Your task to perform on an android device: turn off translation in the chrome app Image 0: 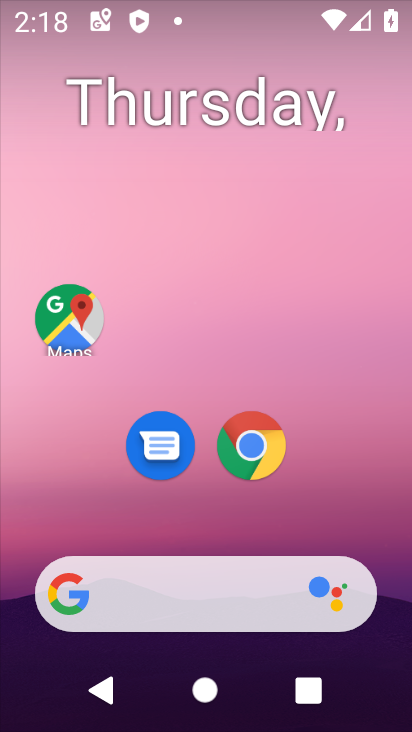
Step 0: press home button
Your task to perform on an android device: turn off translation in the chrome app Image 1: 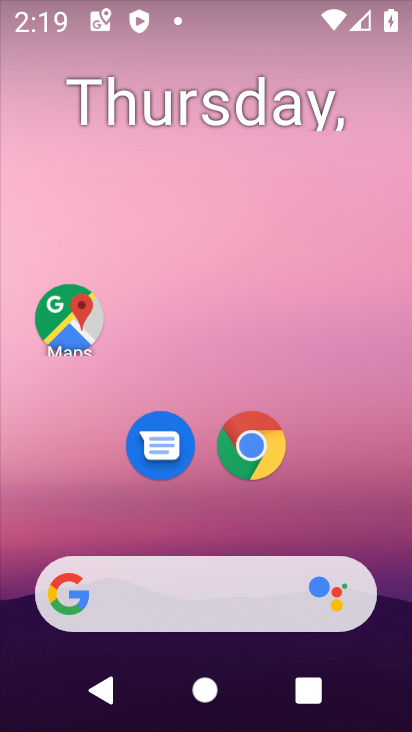
Step 1: click (242, 460)
Your task to perform on an android device: turn off translation in the chrome app Image 2: 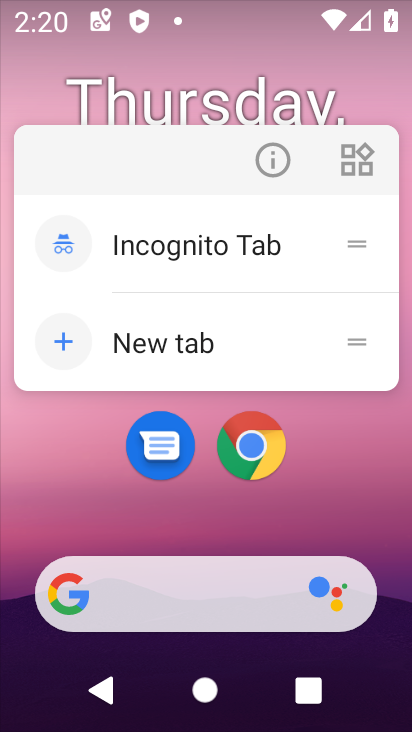
Step 2: click (253, 448)
Your task to perform on an android device: turn off translation in the chrome app Image 3: 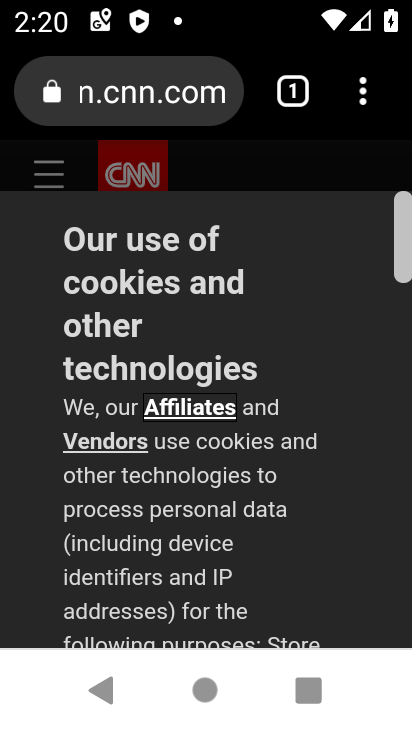
Step 3: click (363, 93)
Your task to perform on an android device: turn off translation in the chrome app Image 4: 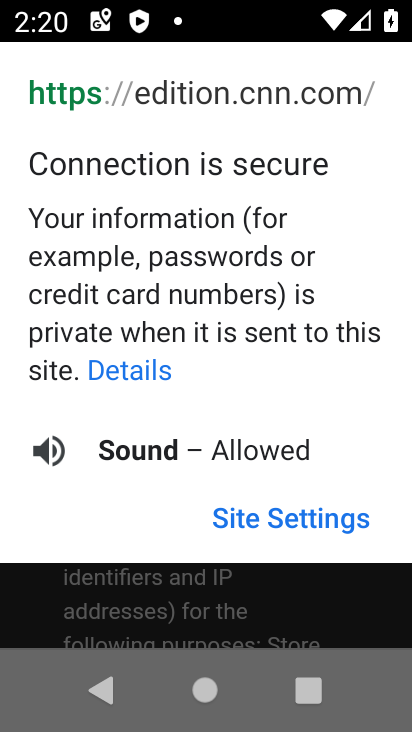
Step 4: press back button
Your task to perform on an android device: turn off translation in the chrome app Image 5: 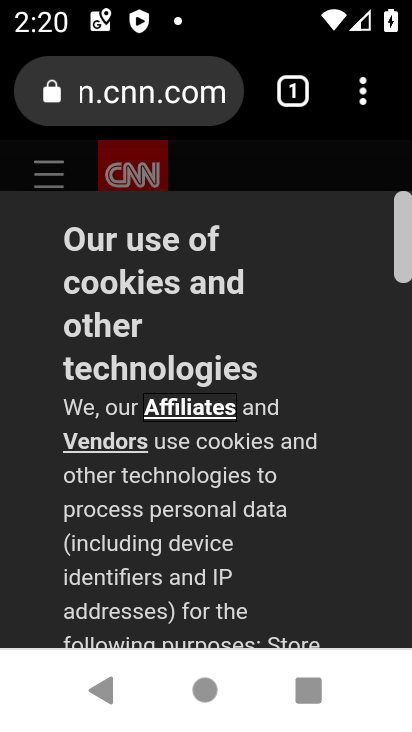
Step 5: click (360, 89)
Your task to perform on an android device: turn off translation in the chrome app Image 6: 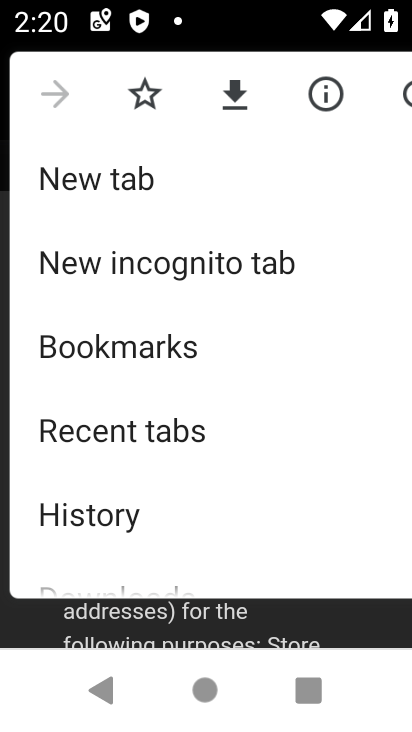
Step 6: drag from (37, 557) to (274, 70)
Your task to perform on an android device: turn off translation in the chrome app Image 7: 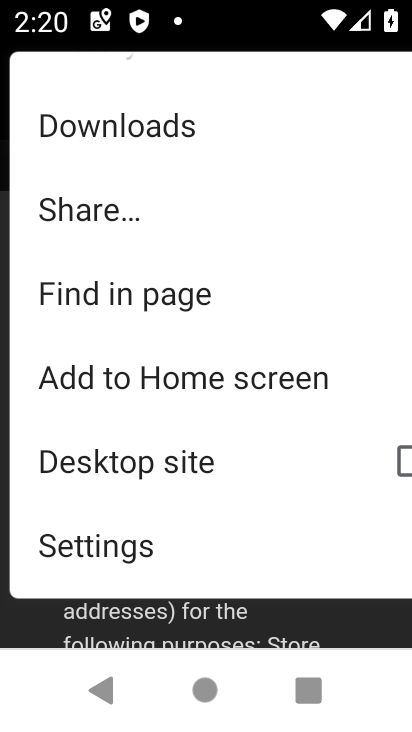
Step 7: drag from (71, 543) to (220, 184)
Your task to perform on an android device: turn off translation in the chrome app Image 8: 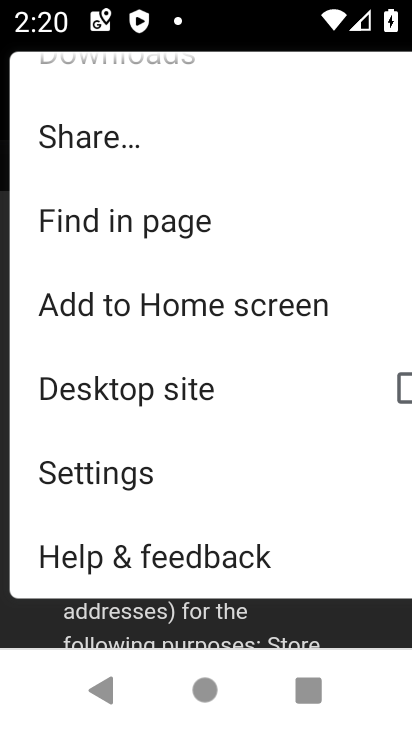
Step 8: click (96, 471)
Your task to perform on an android device: turn off translation in the chrome app Image 9: 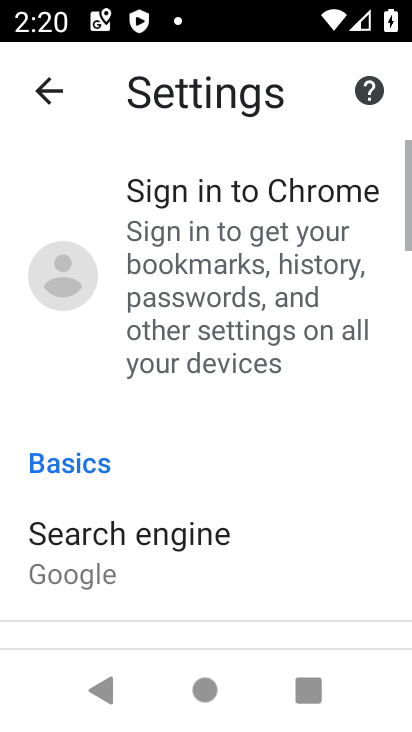
Step 9: drag from (61, 520) to (199, 223)
Your task to perform on an android device: turn off translation in the chrome app Image 10: 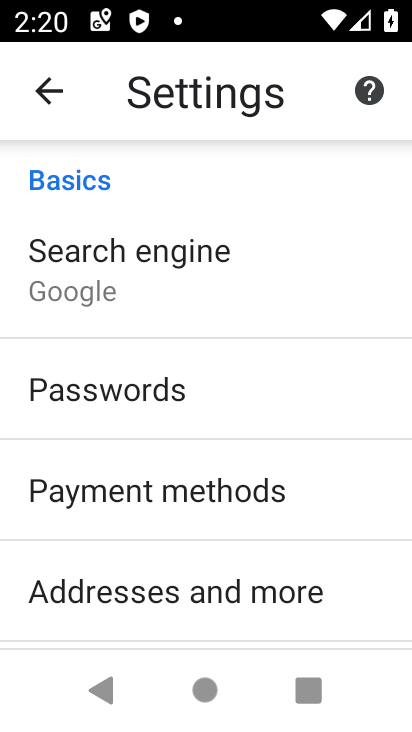
Step 10: drag from (10, 578) to (184, 233)
Your task to perform on an android device: turn off translation in the chrome app Image 11: 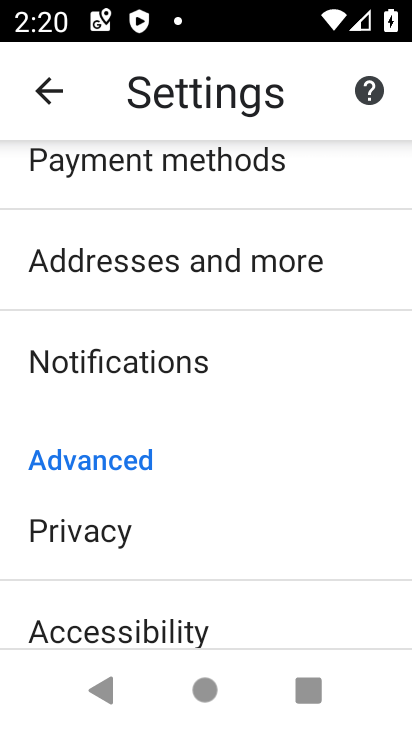
Step 11: drag from (34, 466) to (191, 204)
Your task to perform on an android device: turn off translation in the chrome app Image 12: 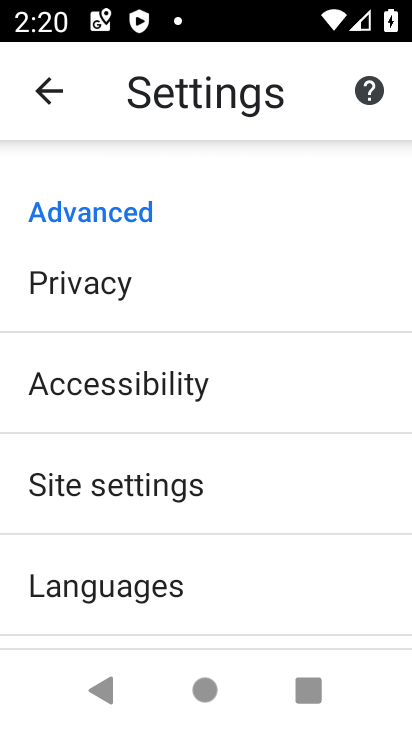
Step 12: click (72, 578)
Your task to perform on an android device: turn off translation in the chrome app Image 13: 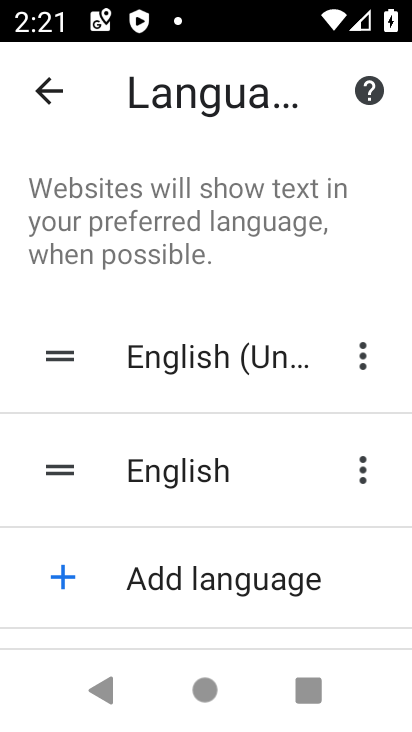
Step 13: drag from (38, 573) to (249, 177)
Your task to perform on an android device: turn off translation in the chrome app Image 14: 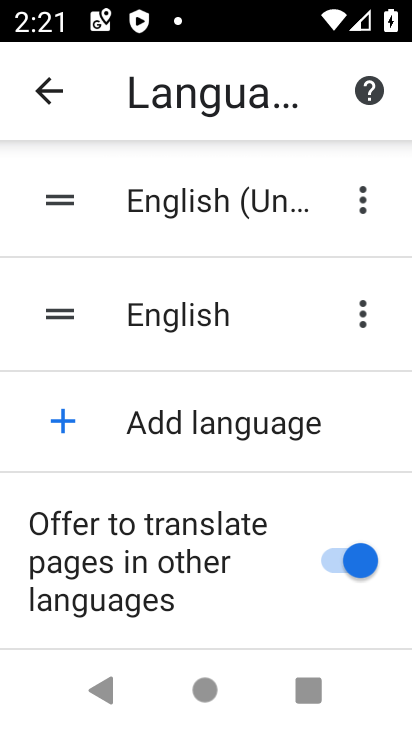
Step 14: click (367, 567)
Your task to perform on an android device: turn off translation in the chrome app Image 15: 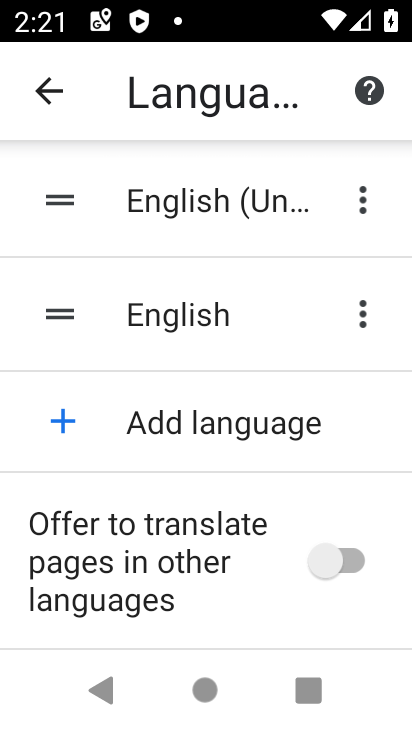
Step 15: task complete